Your task to perform on an android device: open chrome privacy settings Image 0: 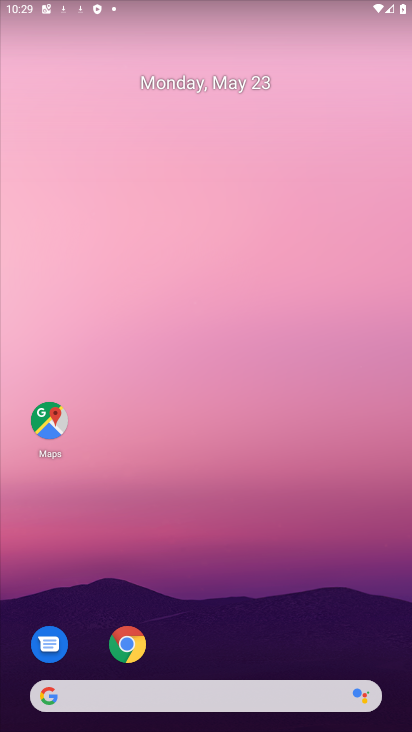
Step 0: drag from (299, 720) to (307, 163)
Your task to perform on an android device: open chrome privacy settings Image 1: 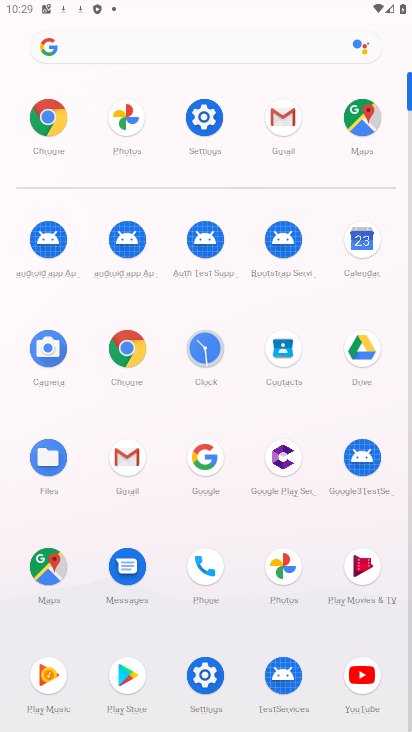
Step 1: click (137, 343)
Your task to perform on an android device: open chrome privacy settings Image 2: 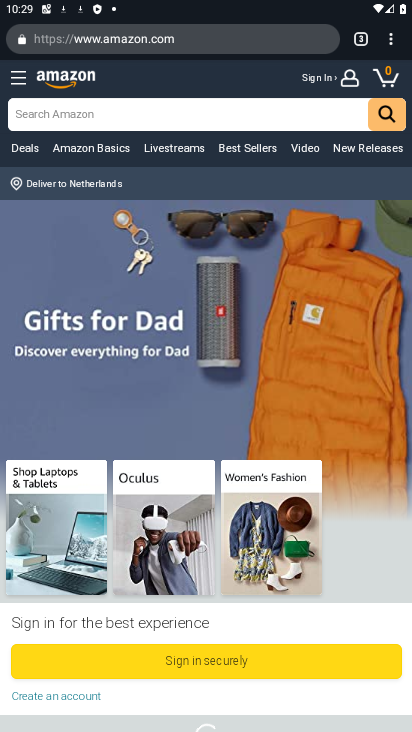
Step 2: click (396, 51)
Your task to perform on an android device: open chrome privacy settings Image 3: 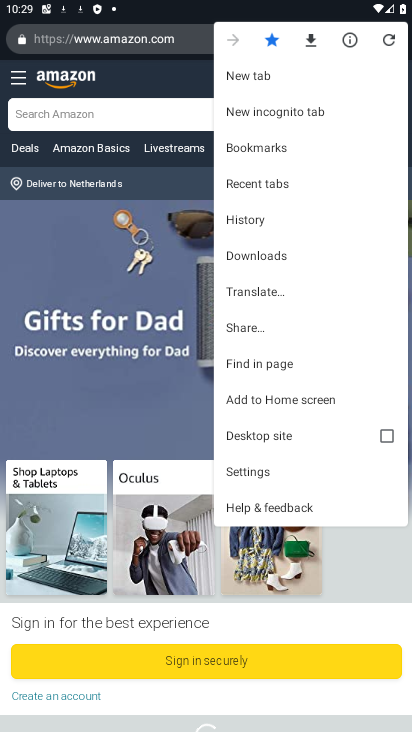
Step 3: click (283, 467)
Your task to perform on an android device: open chrome privacy settings Image 4: 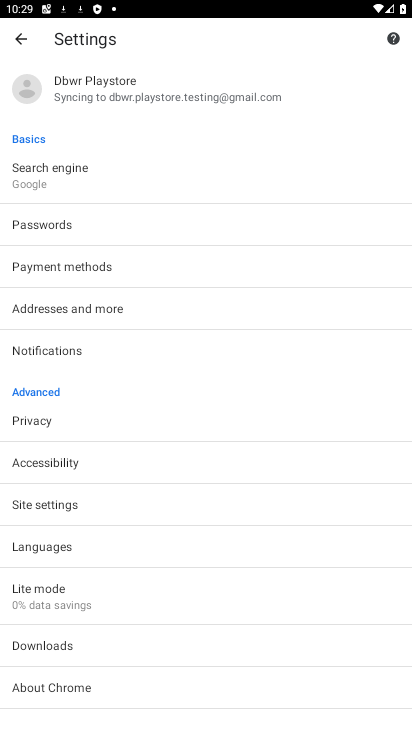
Step 4: click (22, 425)
Your task to perform on an android device: open chrome privacy settings Image 5: 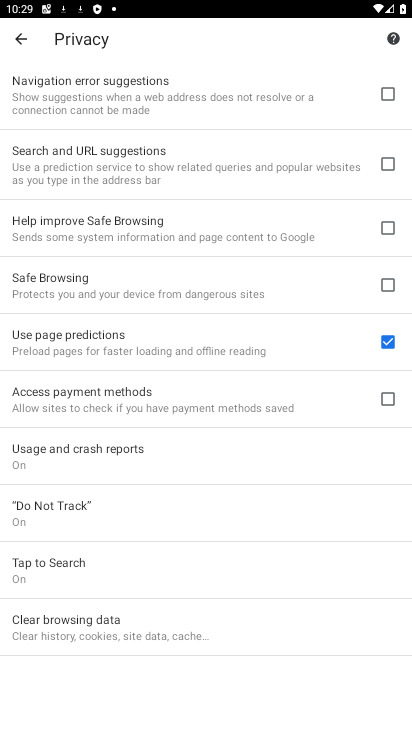
Step 5: task complete